Your task to perform on an android device: move an email to a new category in the gmail app Image 0: 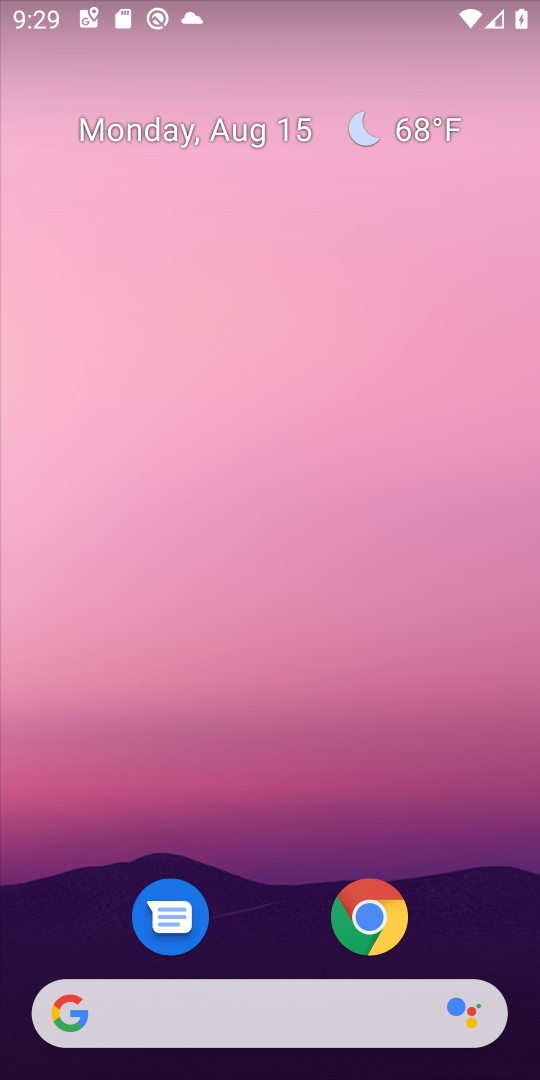
Step 0: drag from (278, 820) to (372, 0)
Your task to perform on an android device: move an email to a new category in the gmail app Image 1: 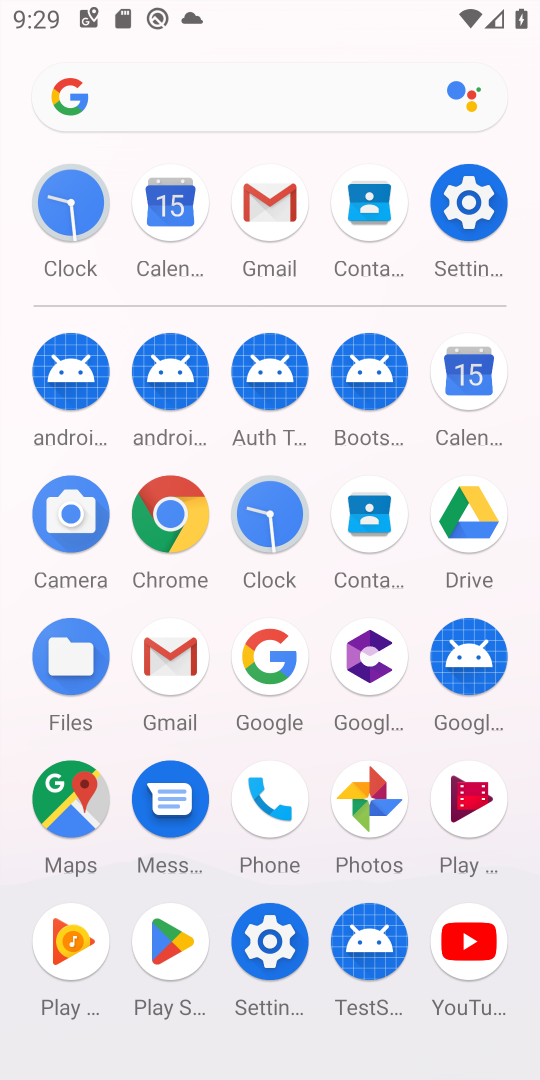
Step 1: click (272, 208)
Your task to perform on an android device: move an email to a new category in the gmail app Image 2: 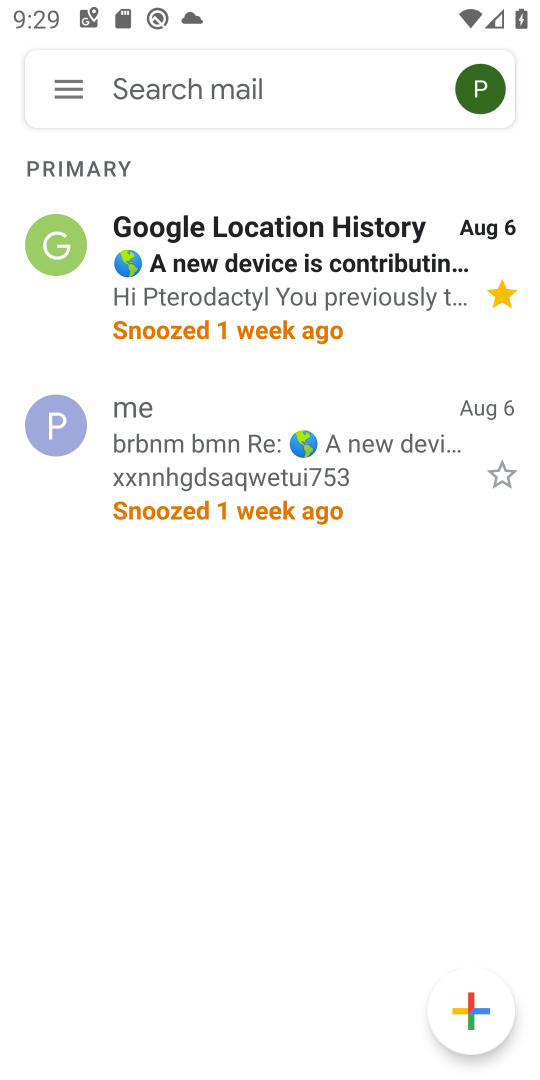
Step 2: click (318, 445)
Your task to perform on an android device: move an email to a new category in the gmail app Image 3: 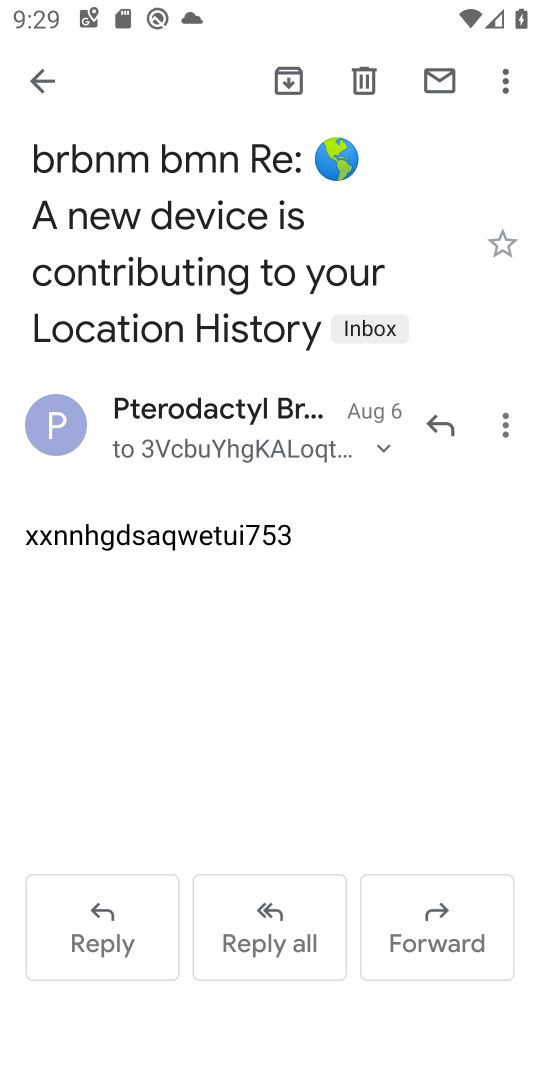
Step 3: click (499, 80)
Your task to perform on an android device: move an email to a new category in the gmail app Image 4: 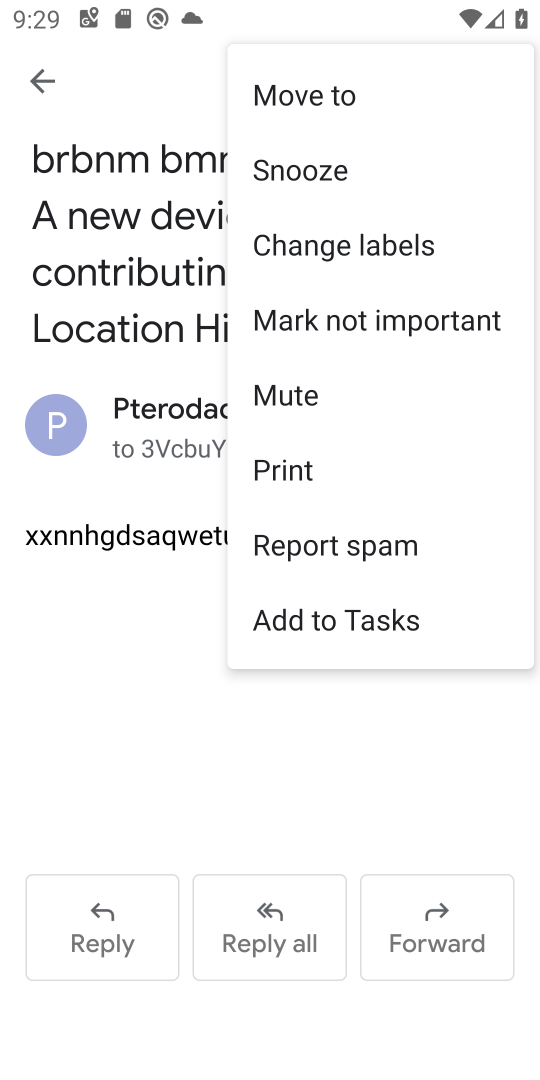
Step 4: click (413, 301)
Your task to perform on an android device: move an email to a new category in the gmail app Image 5: 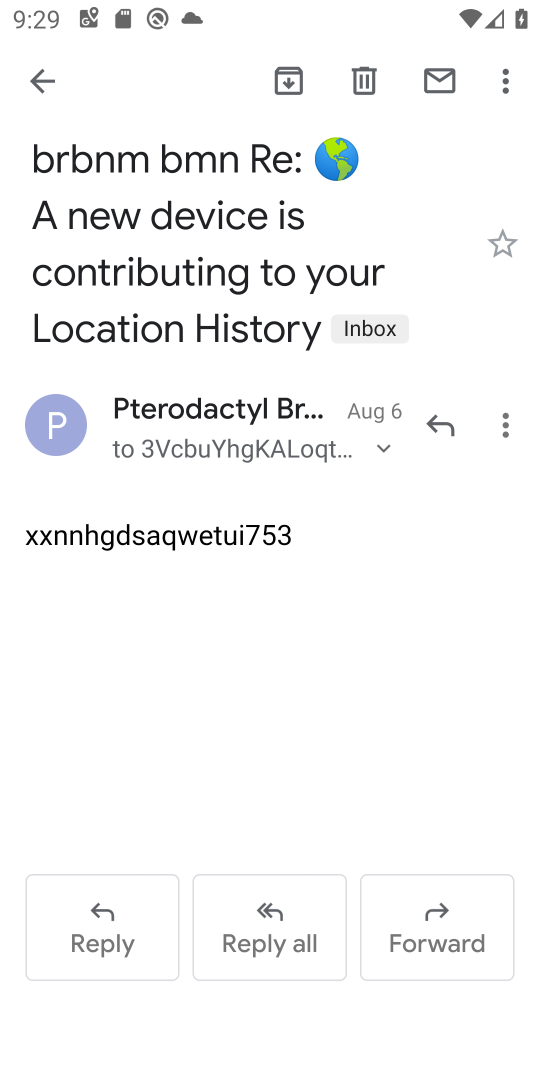
Step 5: task complete